Your task to perform on an android device: Go to settings Image 0: 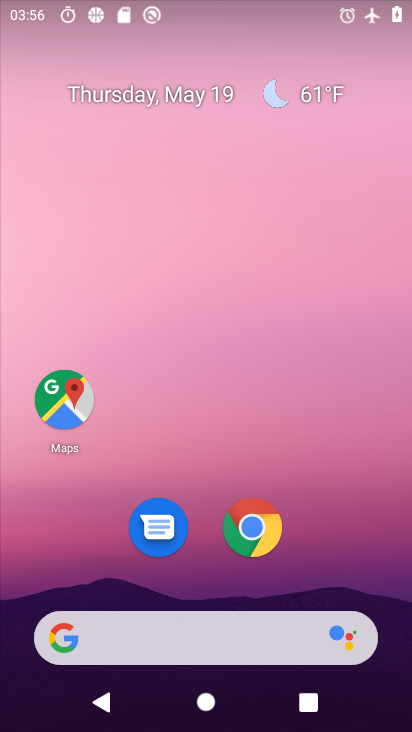
Step 0: drag from (196, 495) to (269, 49)
Your task to perform on an android device: Go to settings Image 1: 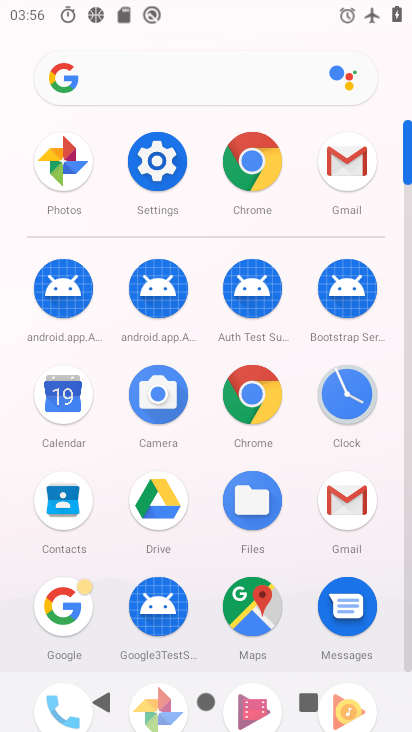
Step 1: click (152, 170)
Your task to perform on an android device: Go to settings Image 2: 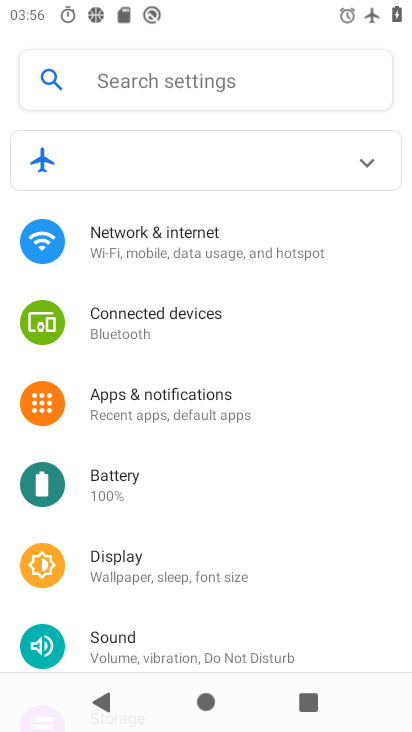
Step 2: task complete